Your task to perform on an android device: allow notifications from all sites in the chrome app Image 0: 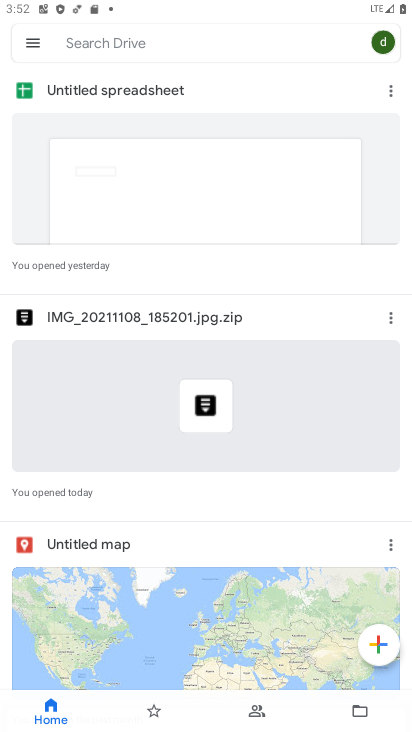
Step 0: press back button
Your task to perform on an android device: allow notifications from all sites in the chrome app Image 1: 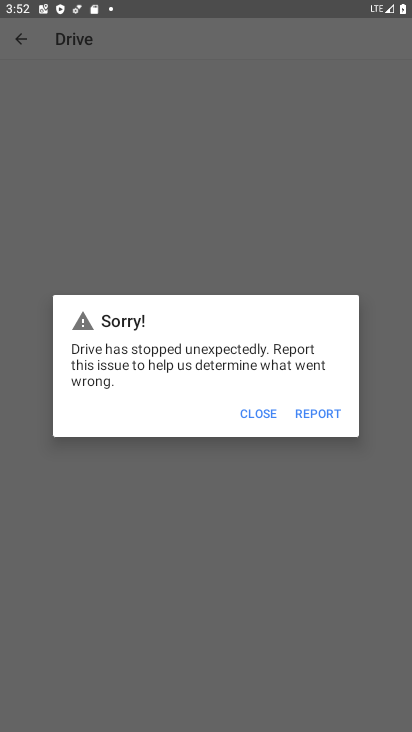
Step 1: click (262, 409)
Your task to perform on an android device: allow notifications from all sites in the chrome app Image 2: 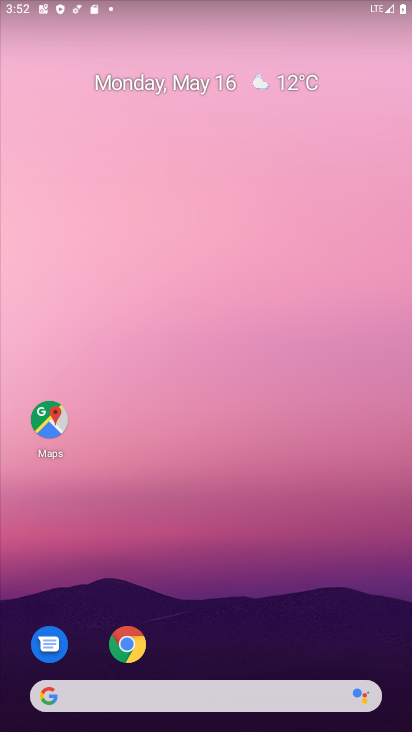
Step 2: click (128, 638)
Your task to perform on an android device: allow notifications from all sites in the chrome app Image 3: 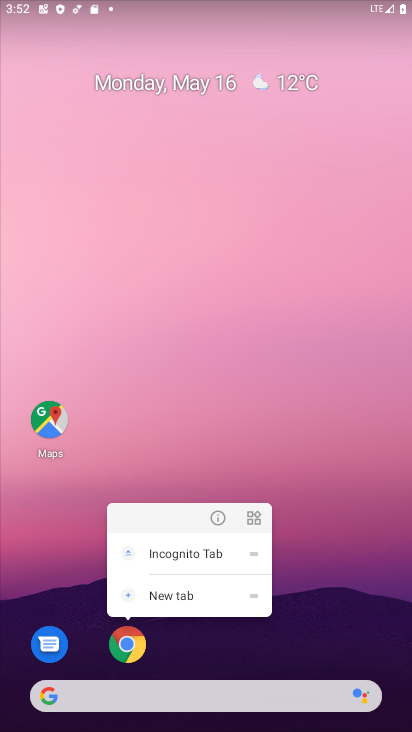
Step 3: click (114, 652)
Your task to perform on an android device: allow notifications from all sites in the chrome app Image 4: 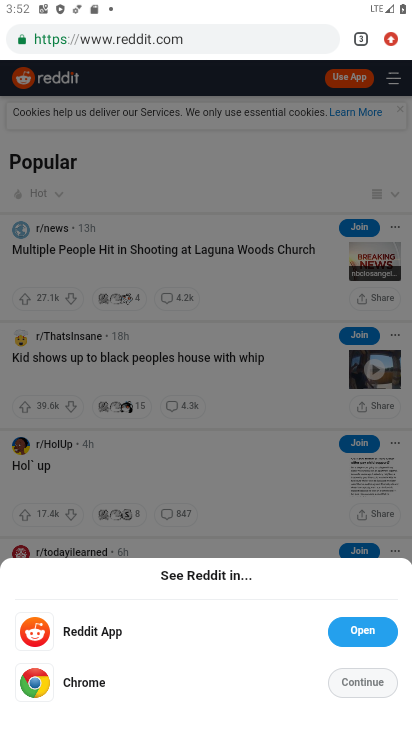
Step 4: click (156, 490)
Your task to perform on an android device: allow notifications from all sites in the chrome app Image 5: 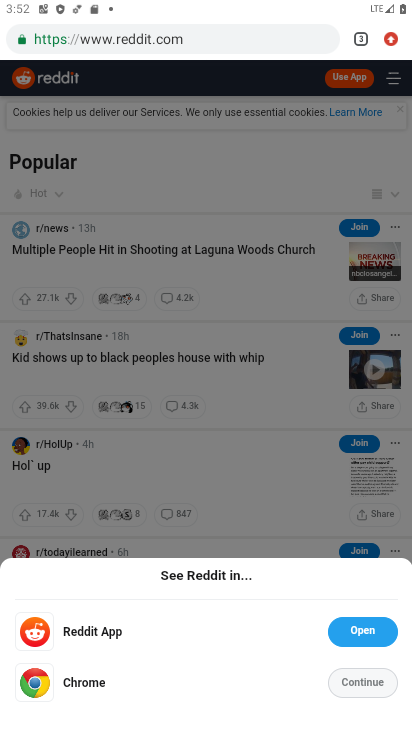
Step 5: drag from (393, 36) to (263, 504)
Your task to perform on an android device: allow notifications from all sites in the chrome app Image 6: 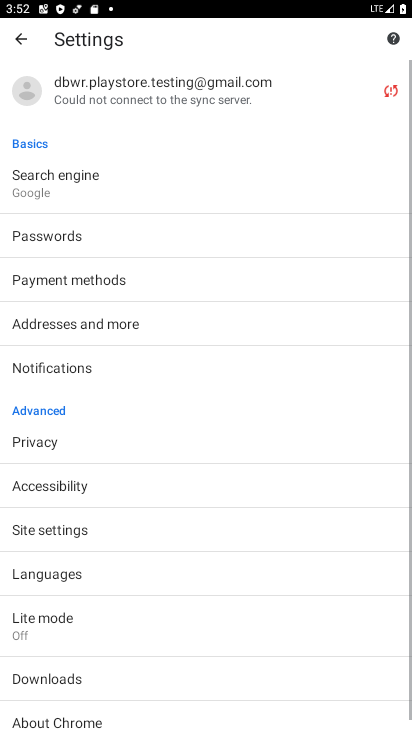
Step 6: click (62, 365)
Your task to perform on an android device: allow notifications from all sites in the chrome app Image 7: 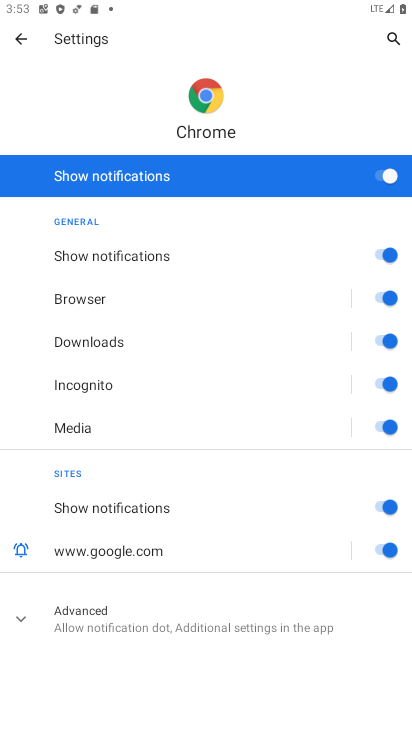
Step 7: task complete